Your task to perform on an android device: open chrome and create a bookmark for the current page Image 0: 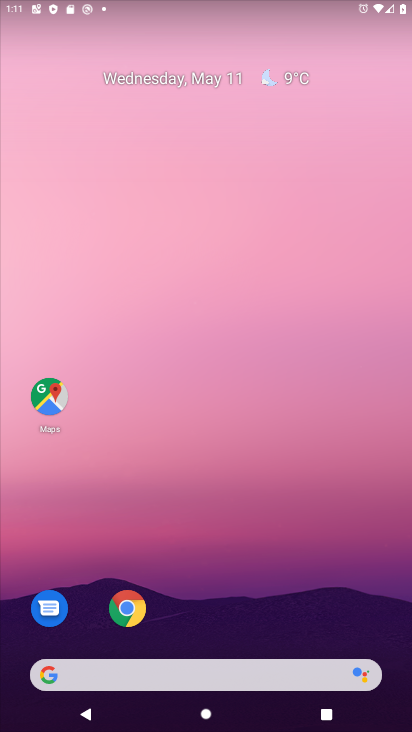
Step 0: drag from (257, 681) to (210, 146)
Your task to perform on an android device: open chrome and create a bookmark for the current page Image 1: 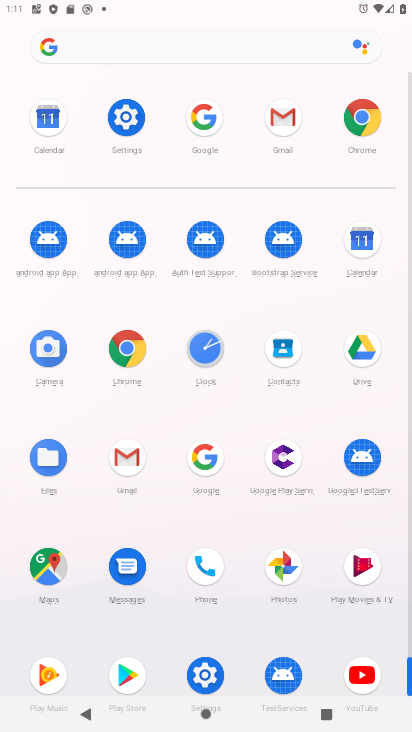
Step 1: click (365, 118)
Your task to perform on an android device: open chrome and create a bookmark for the current page Image 2: 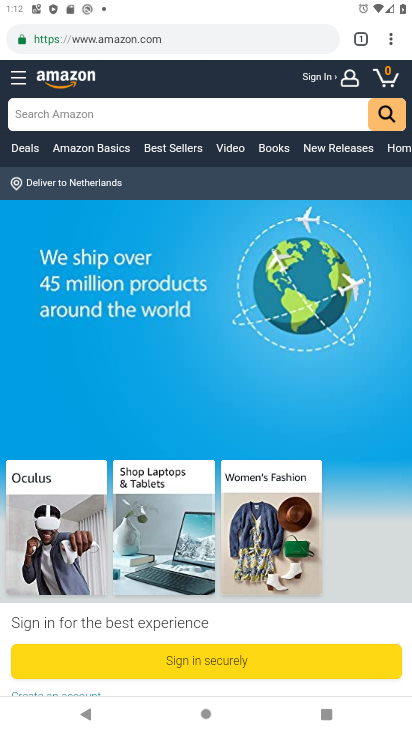
Step 2: click (395, 38)
Your task to perform on an android device: open chrome and create a bookmark for the current page Image 3: 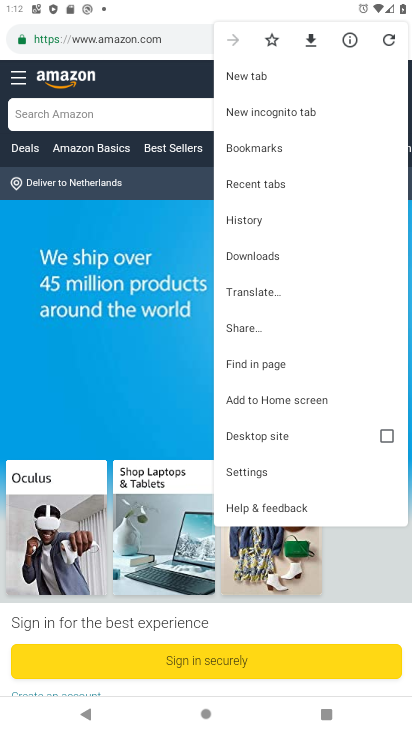
Step 3: click (104, 195)
Your task to perform on an android device: open chrome and create a bookmark for the current page Image 4: 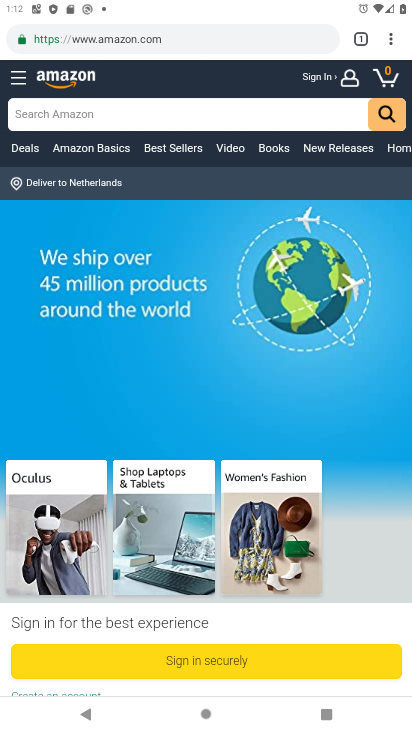
Step 4: click (183, 46)
Your task to perform on an android device: open chrome and create a bookmark for the current page Image 5: 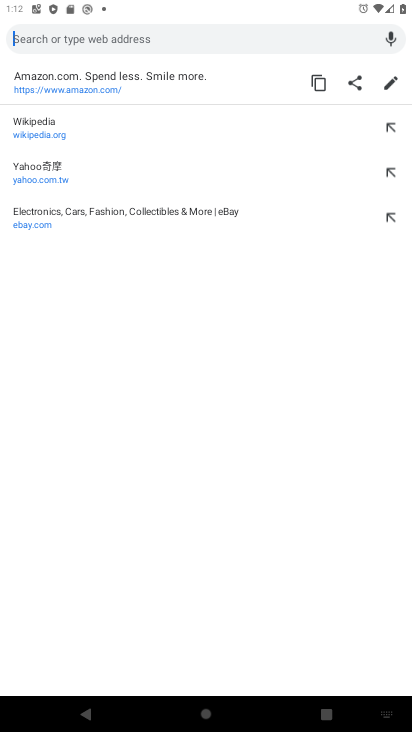
Step 5: type "hjgjg"
Your task to perform on an android device: open chrome and create a bookmark for the current page Image 6: 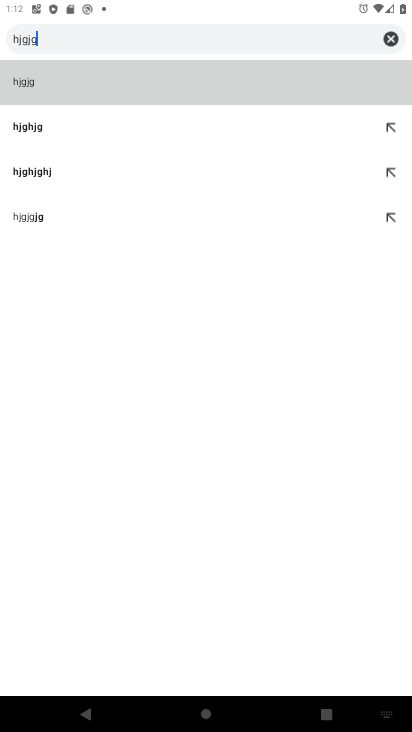
Step 6: click (171, 129)
Your task to perform on an android device: open chrome and create a bookmark for the current page Image 7: 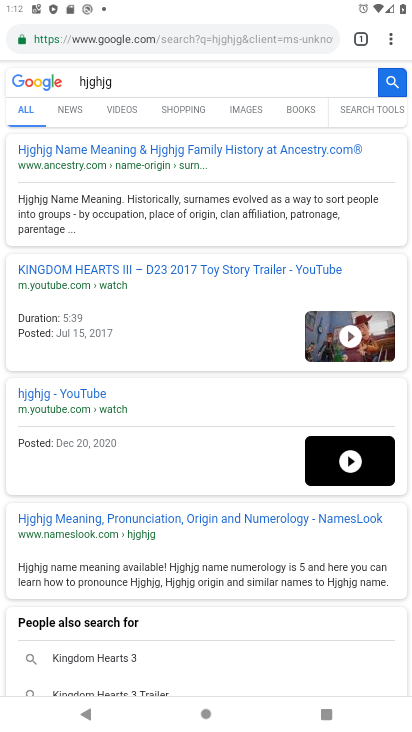
Step 7: click (123, 144)
Your task to perform on an android device: open chrome and create a bookmark for the current page Image 8: 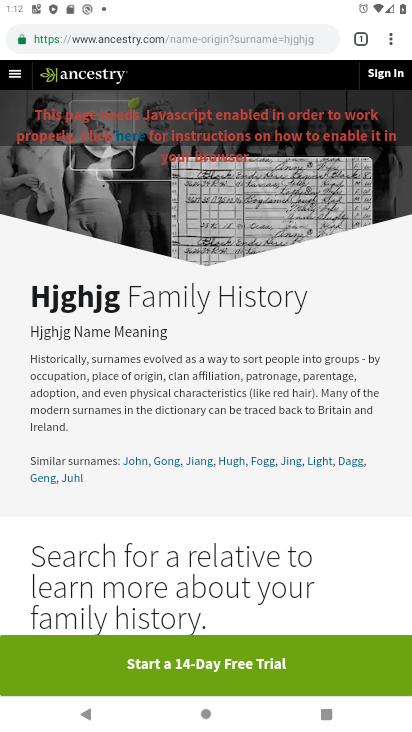
Step 8: click (392, 37)
Your task to perform on an android device: open chrome and create a bookmark for the current page Image 9: 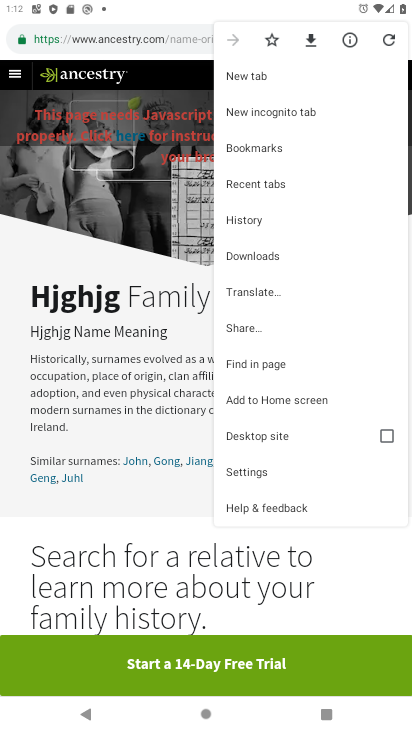
Step 9: click (275, 45)
Your task to perform on an android device: open chrome and create a bookmark for the current page Image 10: 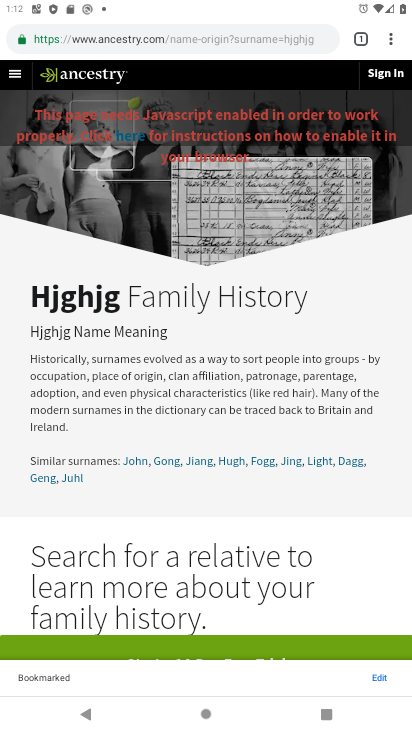
Step 10: task complete